Your task to perform on an android device: find photos in the google photos app Image 0: 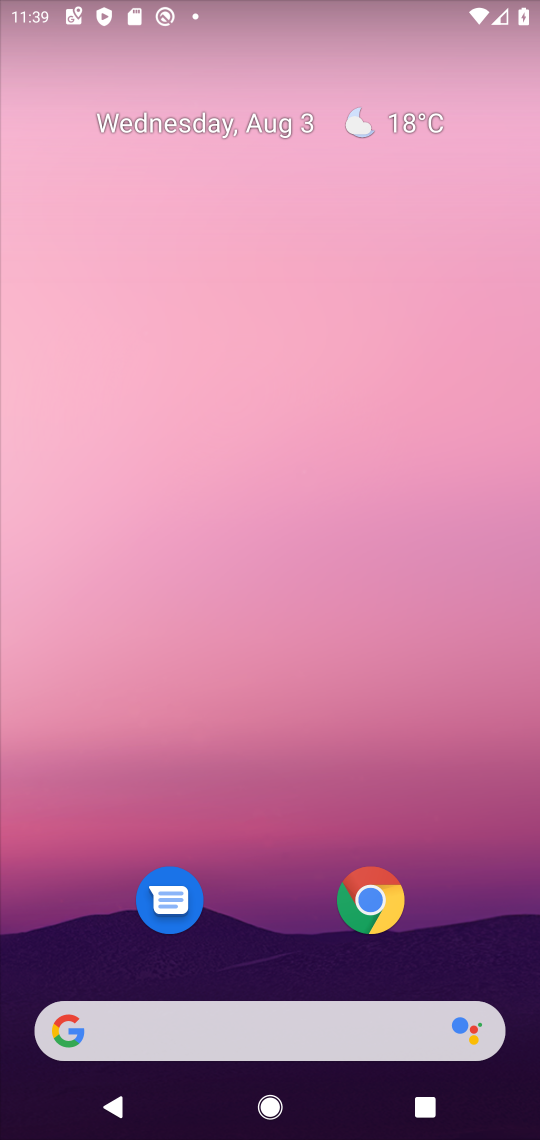
Step 0: press home button
Your task to perform on an android device: find photos in the google photos app Image 1: 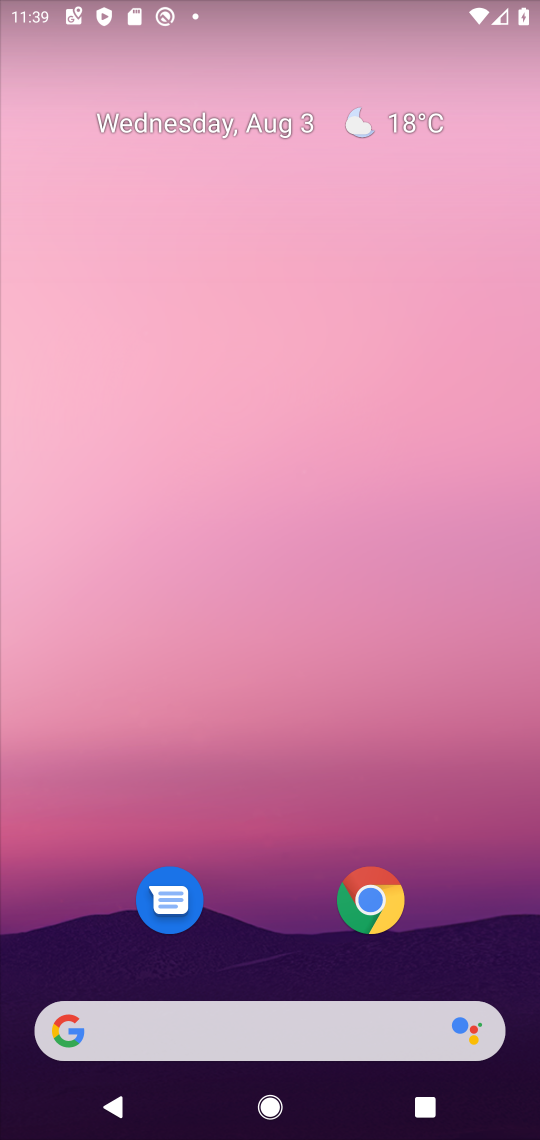
Step 1: drag from (288, 843) to (528, 902)
Your task to perform on an android device: find photos in the google photos app Image 2: 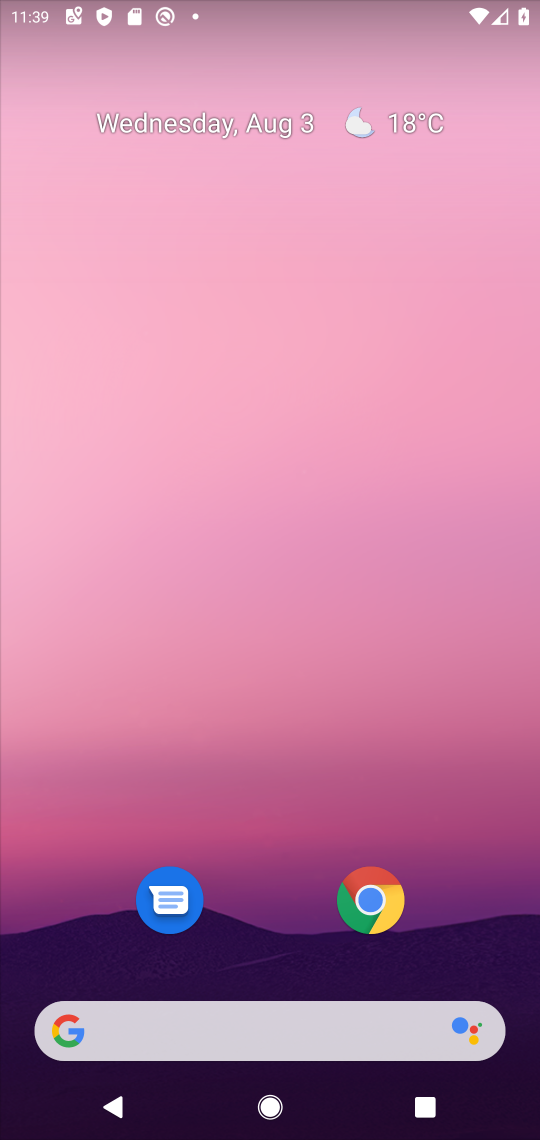
Step 2: drag from (282, 693) to (386, 47)
Your task to perform on an android device: find photos in the google photos app Image 3: 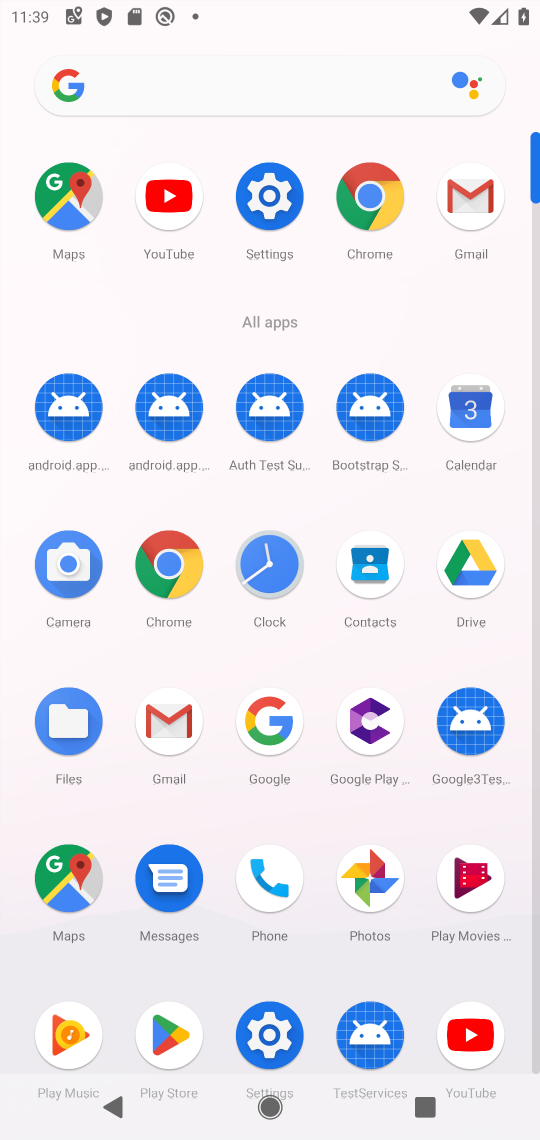
Step 3: click (374, 857)
Your task to perform on an android device: find photos in the google photos app Image 4: 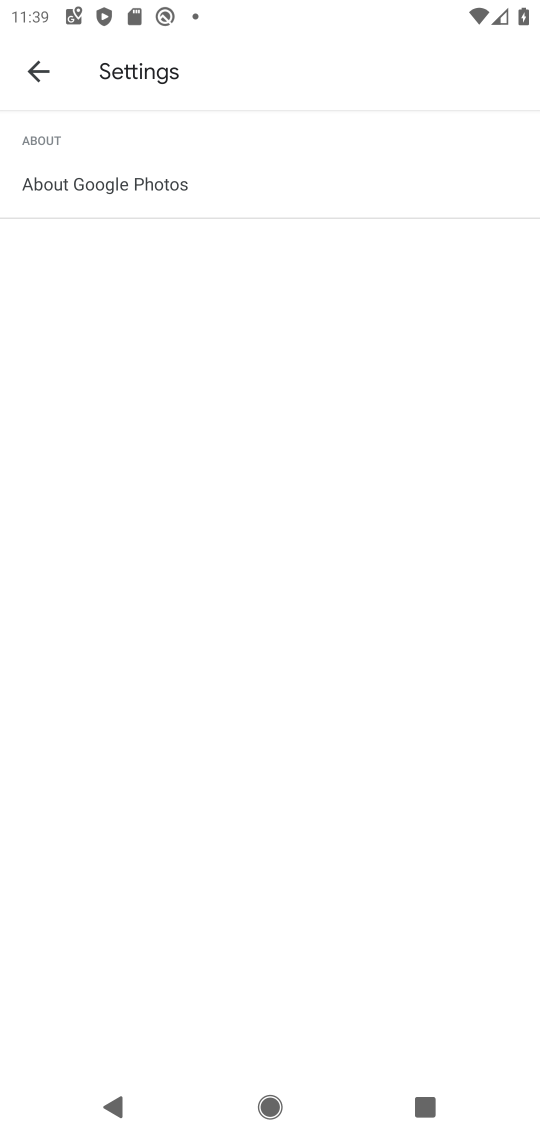
Step 4: click (41, 70)
Your task to perform on an android device: find photos in the google photos app Image 5: 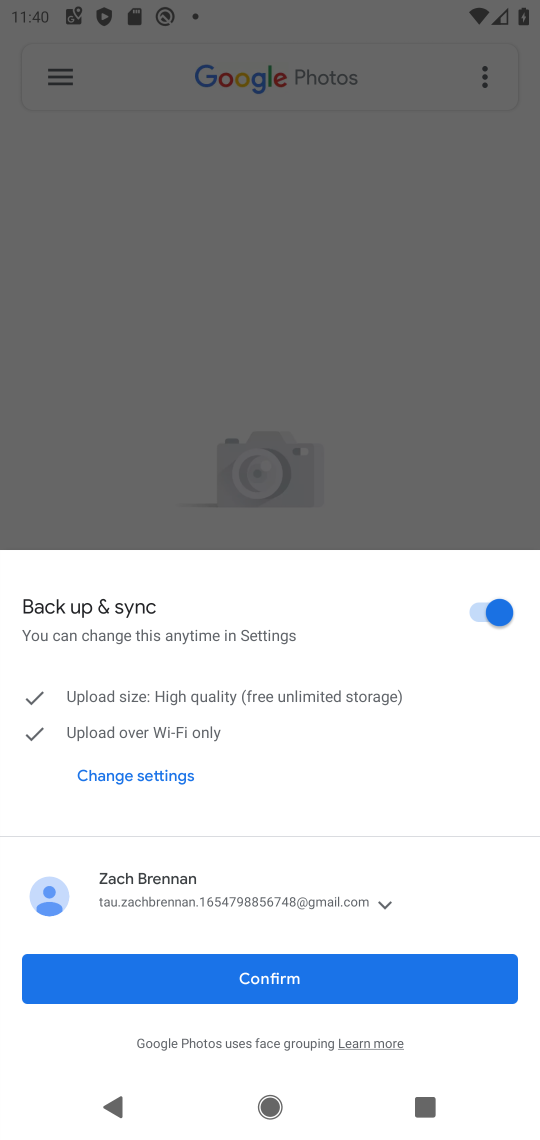
Step 5: click (364, 993)
Your task to perform on an android device: find photos in the google photos app Image 6: 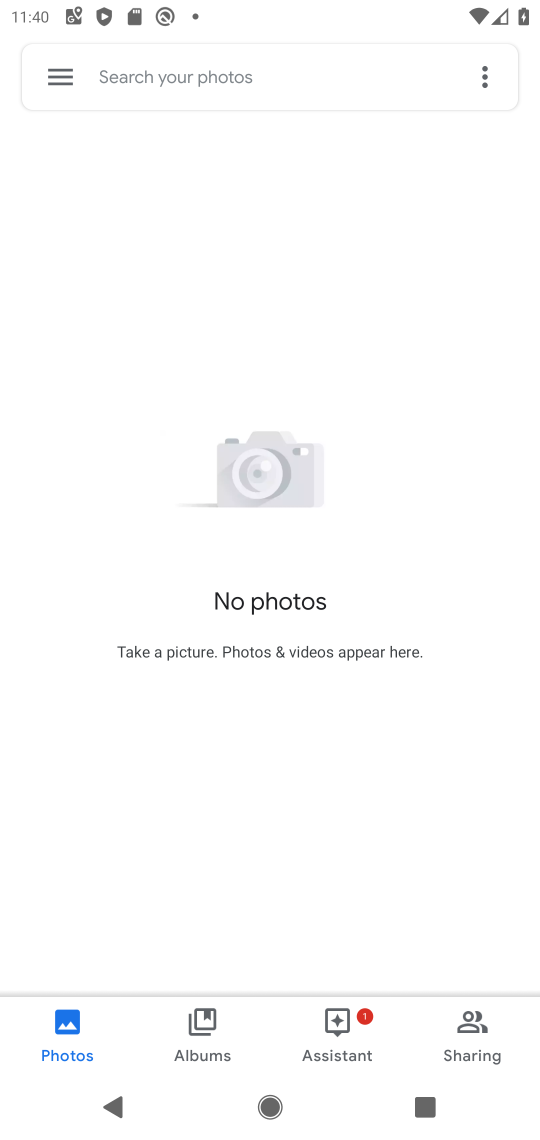
Step 6: task complete